Your task to perform on an android device: Play the last video I watched on Youtube Image 0: 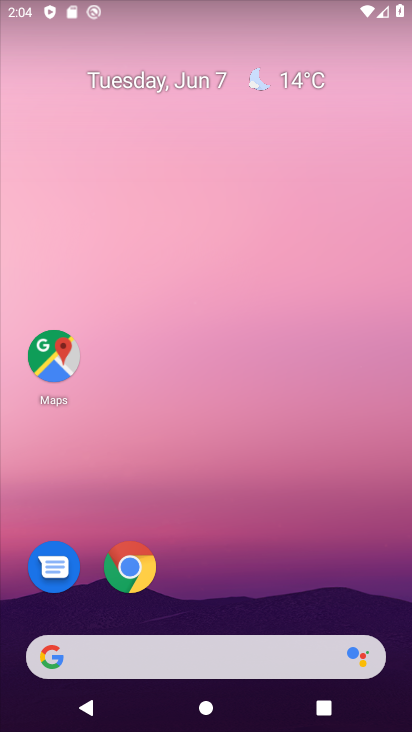
Step 0: drag from (234, 581) to (237, 69)
Your task to perform on an android device: Play the last video I watched on Youtube Image 1: 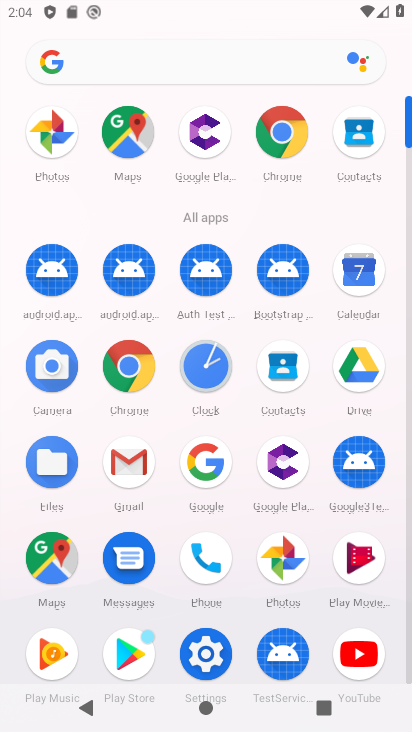
Step 1: click (358, 639)
Your task to perform on an android device: Play the last video I watched on Youtube Image 2: 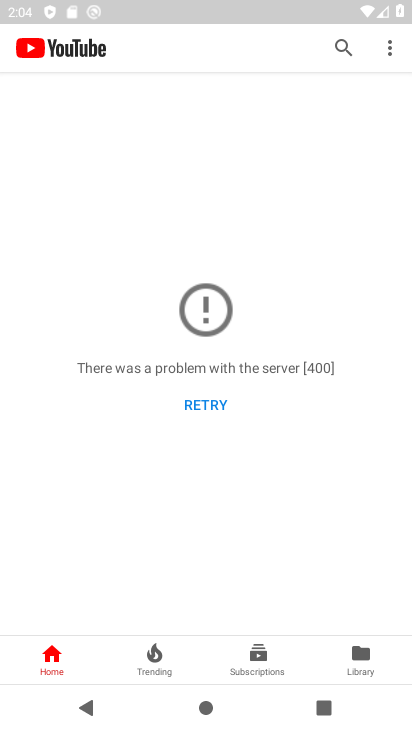
Step 2: click (223, 396)
Your task to perform on an android device: Play the last video I watched on Youtube Image 3: 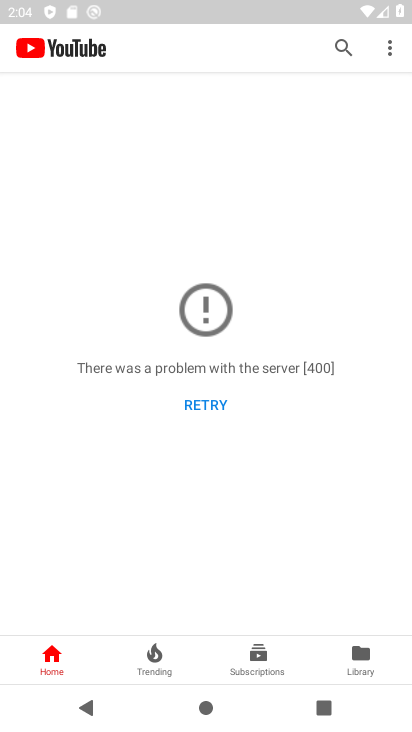
Step 3: click (223, 396)
Your task to perform on an android device: Play the last video I watched on Youtube Image 4: 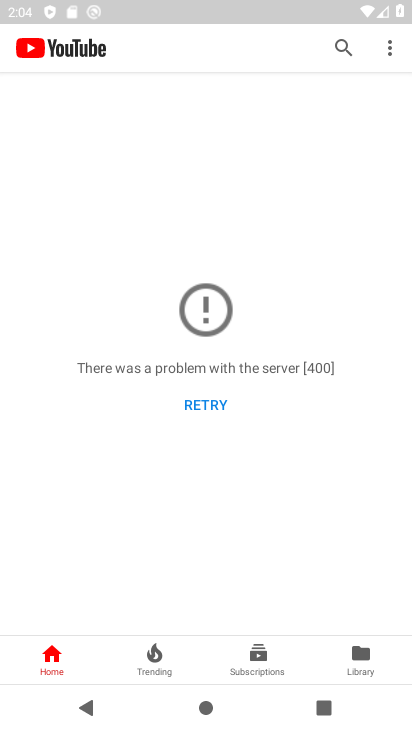
Step 4: click (365, 644)
Your task to perform on an android device: Play the last video I watched on Youtube Image 5: 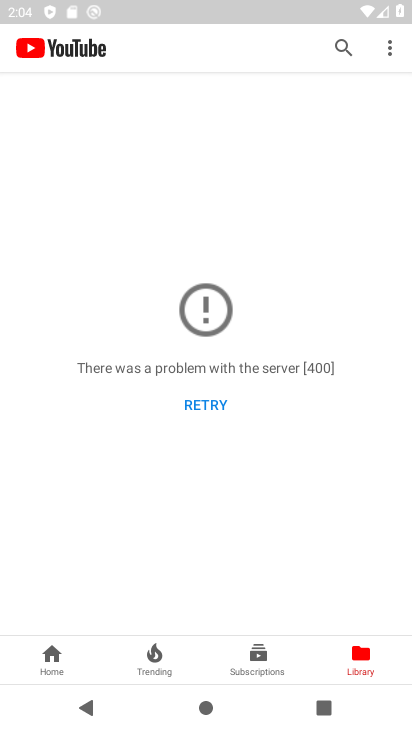
Step 5: click (186, 393)
Your task to perform on an android device: Play the last video I watched on Youtube Image 6: 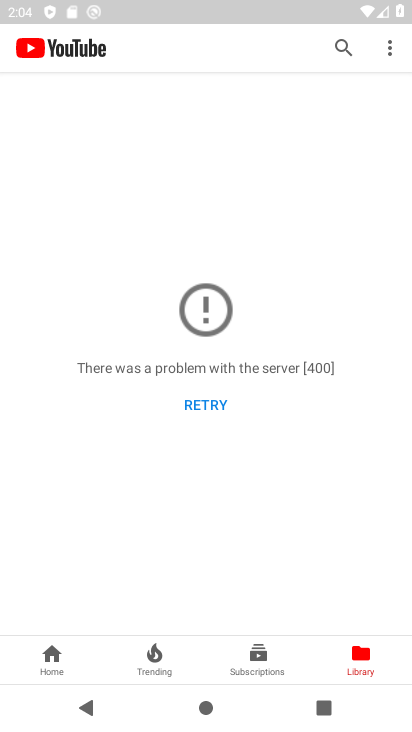
Step 6: click (186, 393)
Your task to perform on an android device: Play the last video I watched on Youtube Image 7: 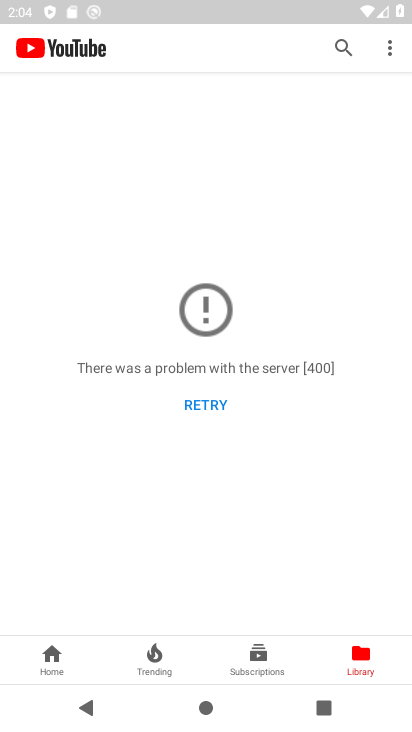
Step 7: click (186, 393)
Your task to perform on an android device: Play the last video I watched on Youtube Image 8: 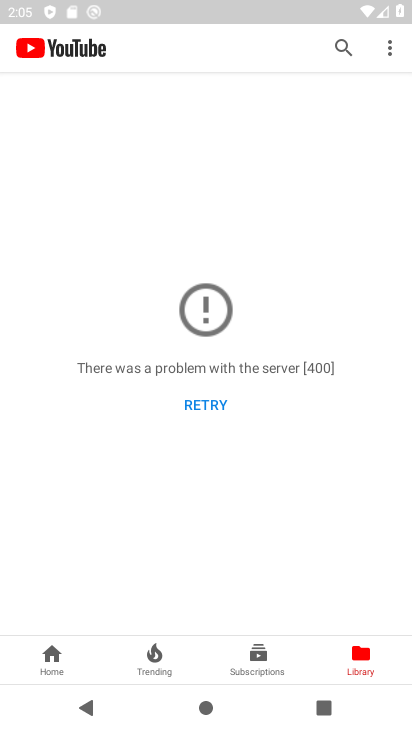
Step 8: click (186, 393)
Your task to perform on an android device: Play the last video I watched on Youtube Image 9: 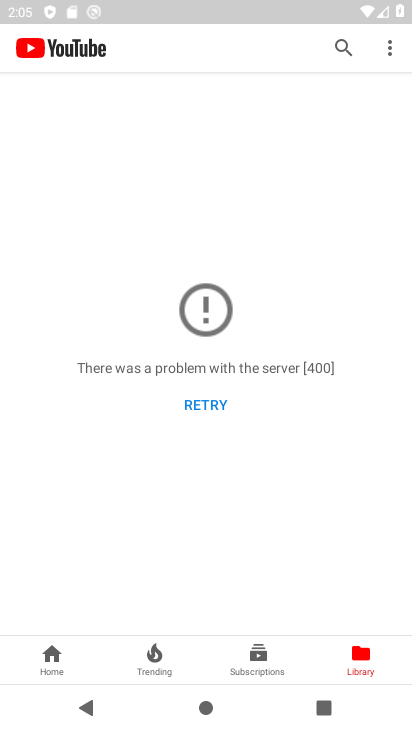
Step 9: click (200, 395)
Your task to perform on an android device: Play the last video I watched on Youtube Image 10: 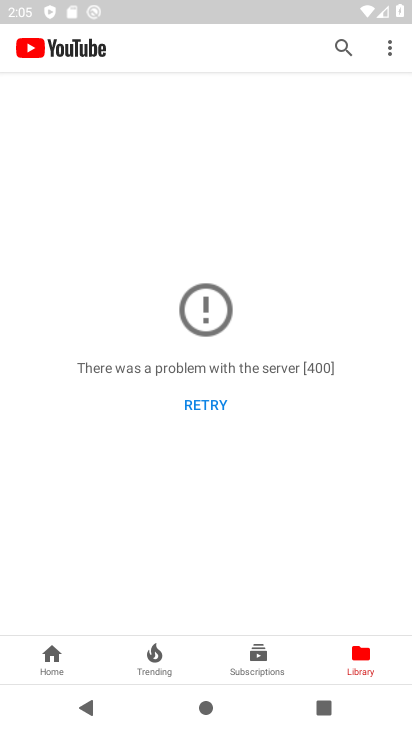
Step 10: click (358, 657)
Your task to perform on an android device: Play the last video I watched on Youtube Image 11: 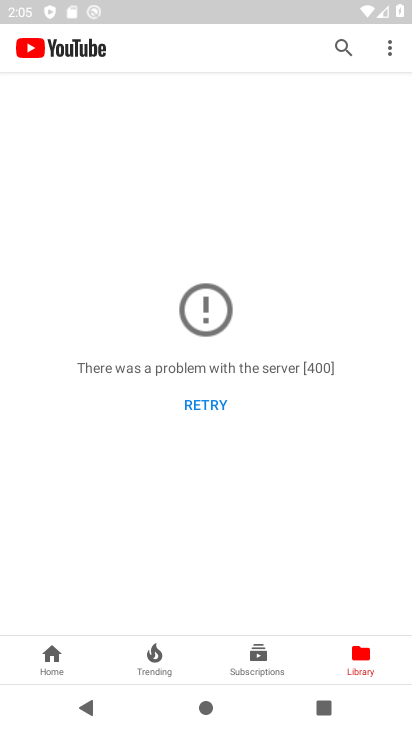
Step 11: click (369, 671)
Your task to perform on an android device: Play the last video I watched on Youtube Image 12: 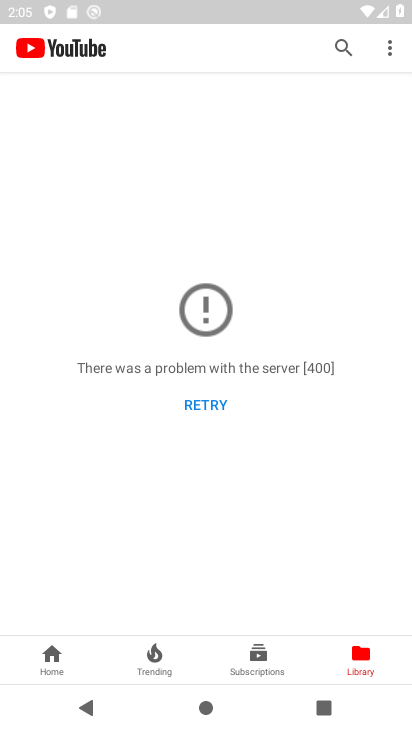
Step 12: click (350, 662)
Your task to perform on an android device: Play the last video I watched on Youtube Image 13: 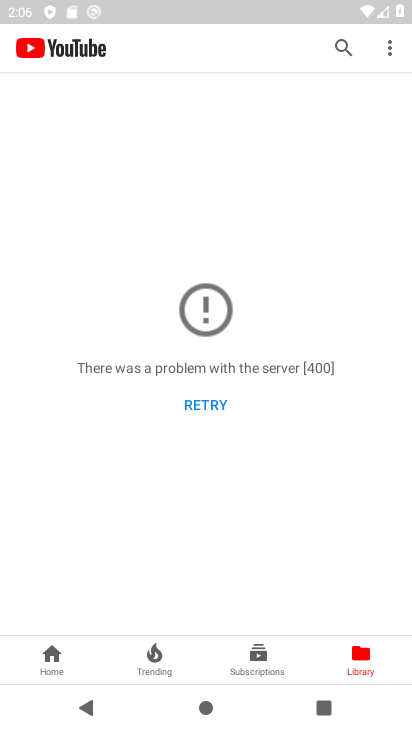
Step 13: task complete